Your task to perform on an android device: Open Youtube and go to the subscriptions tab Image 0: 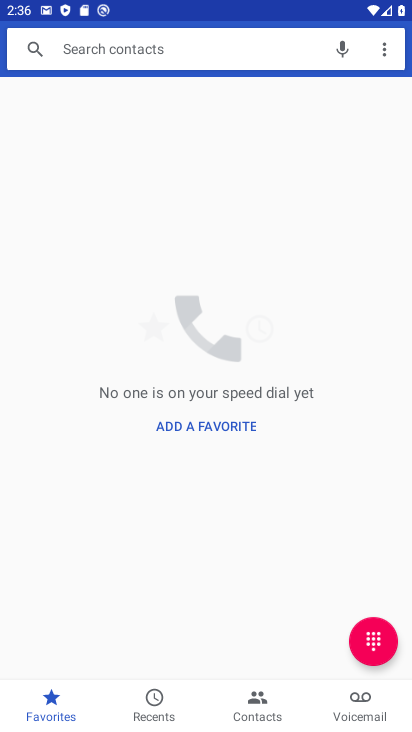
Step 0: press home button
Your task to perform on an android device: Open Youtube and go to the subscriptions tab Image 1: 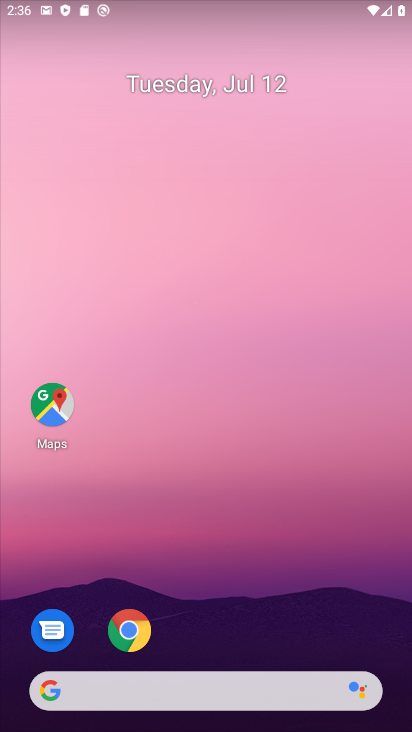
Step 1: drag from (302, 673) to (304, 57)
Your task to perform on an android device: Open Youtube and go to the subscriptions tab Image 2: 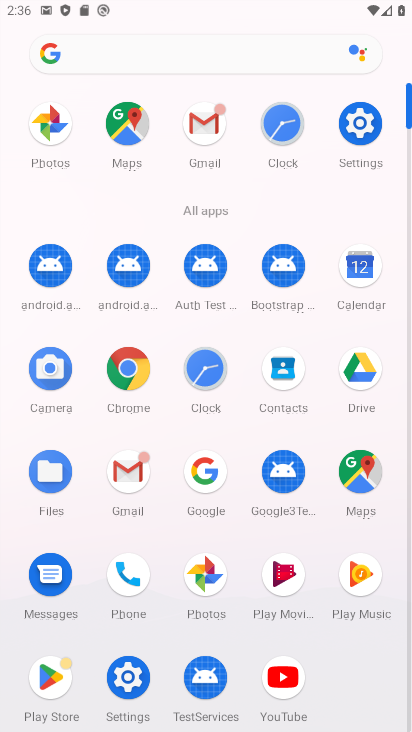
Step 2: click (288, 684)
Your task to perform on an android device: Open Youtube and go to the subscriptions tab Image 3: 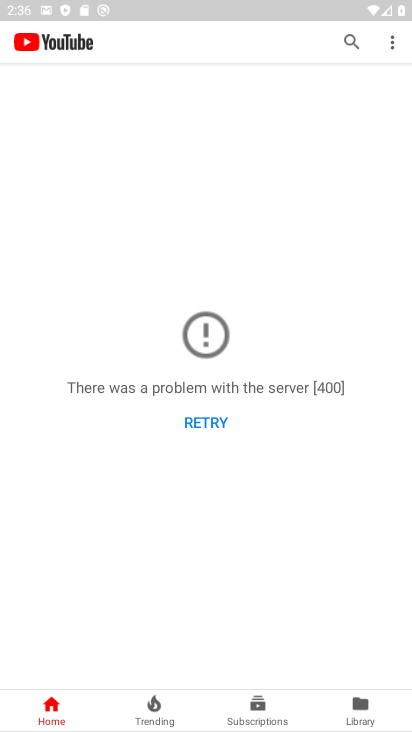
Step 3: click (214, 417)
Your task to perform on an android device: Open Youtube and go to the subscriptions tab Image 4: 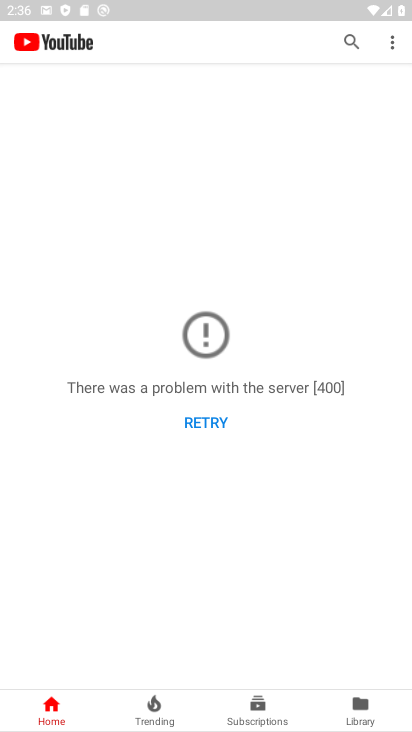
Step 4: click (256, 698)
Your task to perform on an android device: Open Youtube and go to the subscriptions tab Image 5: 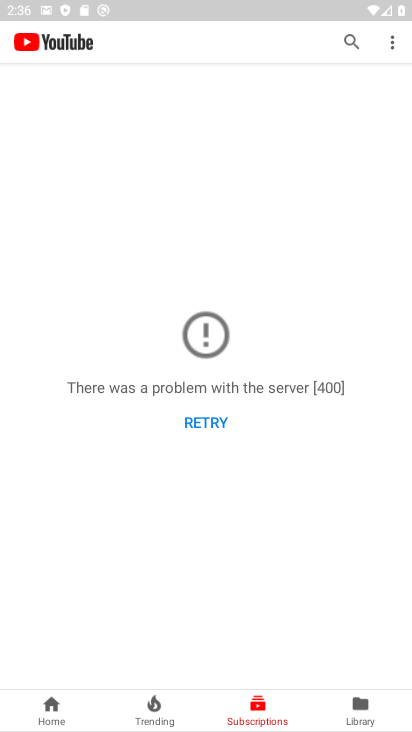
Step 5: task complete